Your task to perform on an android device: Go to battery settings Image 0: 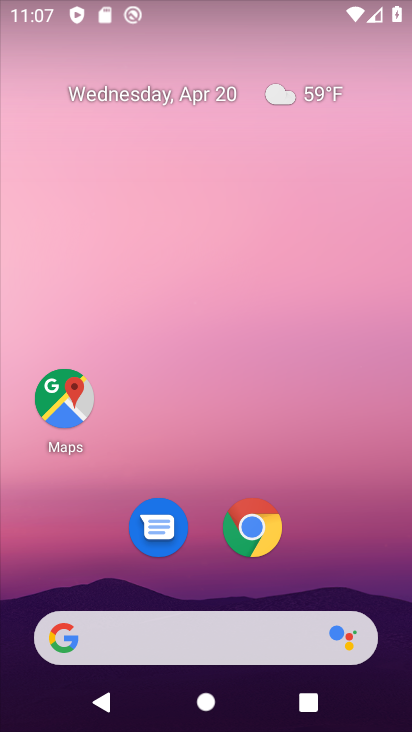
Step 0: drag from (368, 549) to (372, 143)
Your task to perform on an android device: Go to battery settings Image 1: 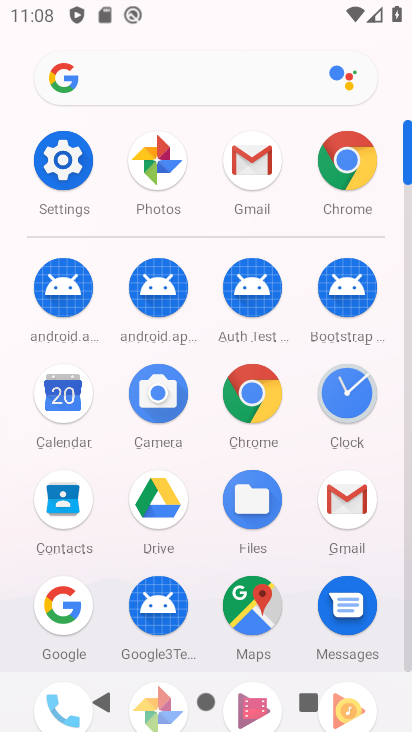
Step 1: click (49, 183)
Your task to perform on an android device: Go to battery settings Image 2: 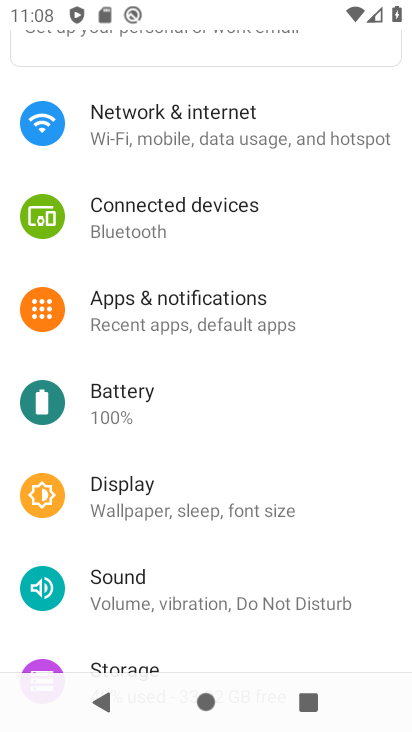
Step 2: click (161, 404)
Your task to perform on an android device: Go to battery settings Image 3: 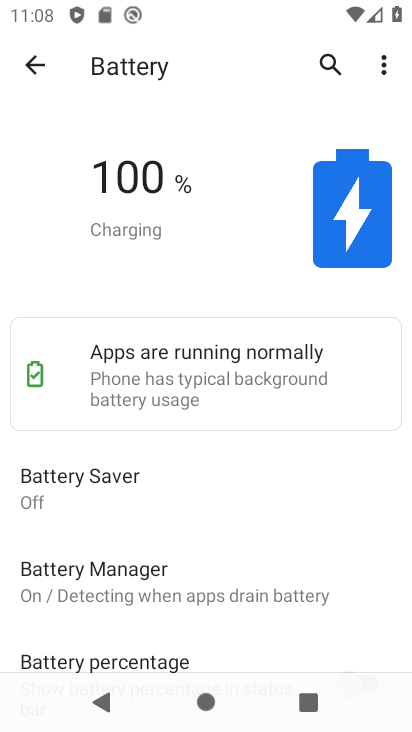
Step 3: task complete